Your task to perform on an android device: Open the calendar app, open the side menu, and click the "Day" option Image 0: 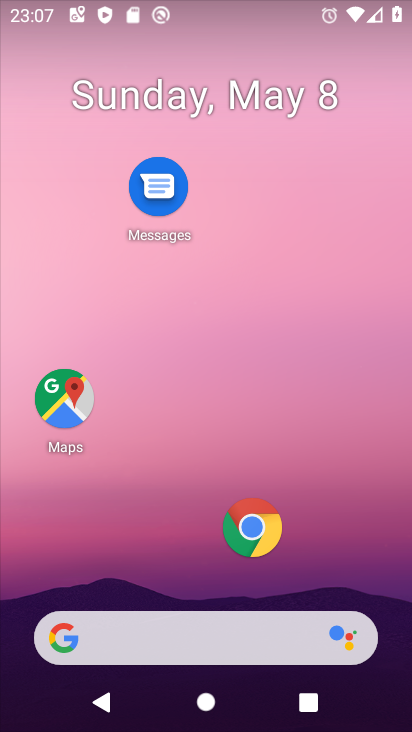
Step 0: drag from (175, 566) to (155, 101)
Your task to perform on an android device: Open the calendar app, open the side menu, and click the "Day" option Image 1: 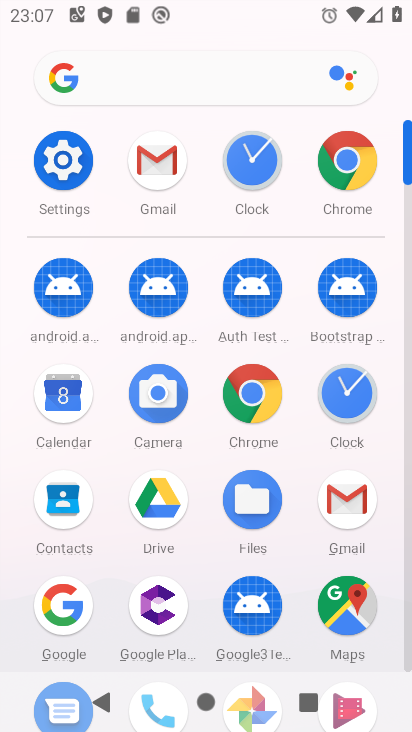
Step 1: click (60, 396)
Your task to perform on an android device: Open the calendar app, open the side menu, and click the "Day" option Image 2: 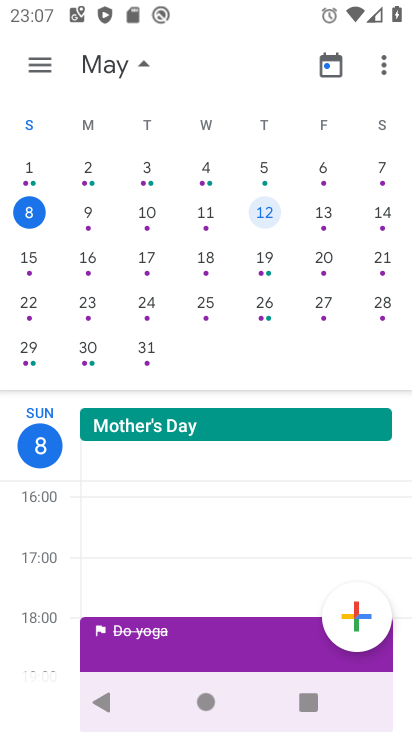
Step 2: click (41, 68)
Your task to perform on an android device: Open the calendar app, open the side menu, and click the "Day" option Image 3: 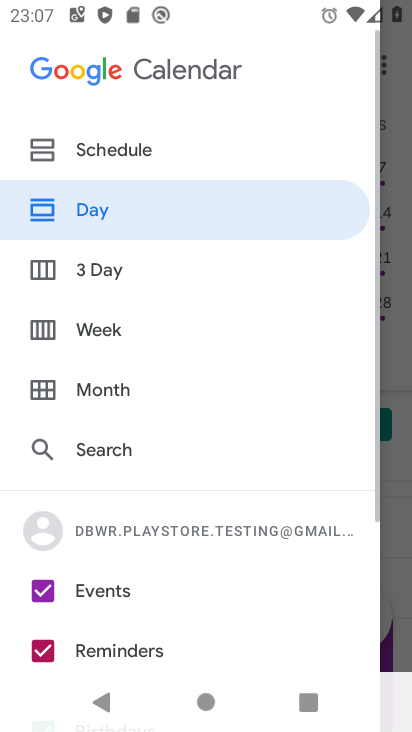
Step 3: click (121, 216)
Your task to perform on an android device: Open the calendar app, open the side menu, and click the "Day" option Image 4: 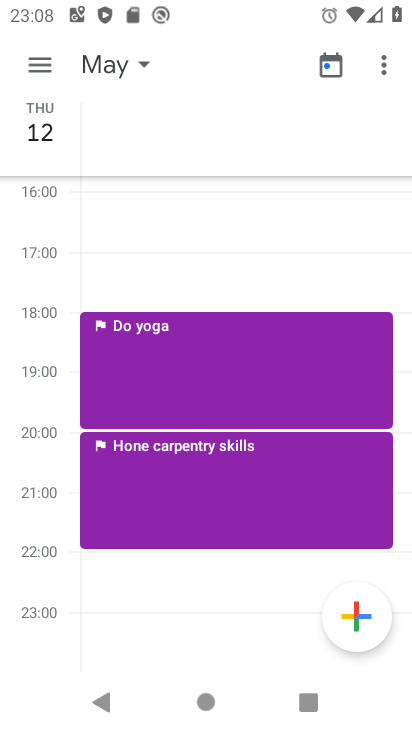
Step 4: task complete